Your task to perform on an android device: Show me recent news Image 0: 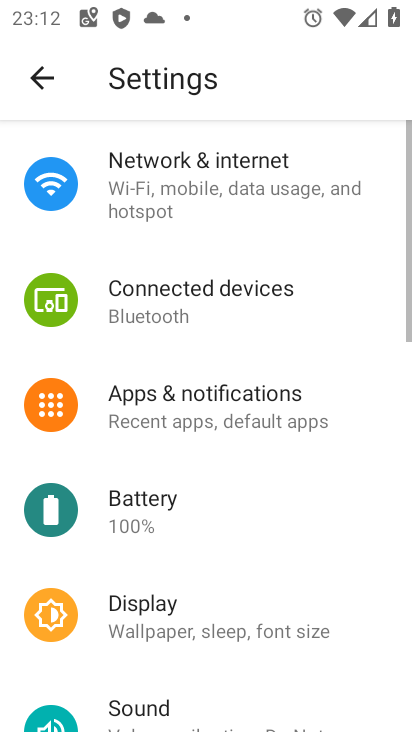
Step 0: press home button
Your task to perform on an android device: Show me recent news Image 1: 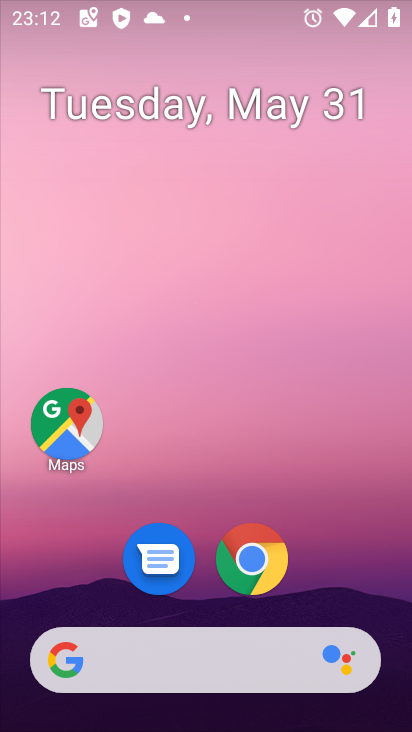
Step 1: drag from (331, 594) to (297, 50)
Your task to perform on an android device: Show me recent news Image 2: 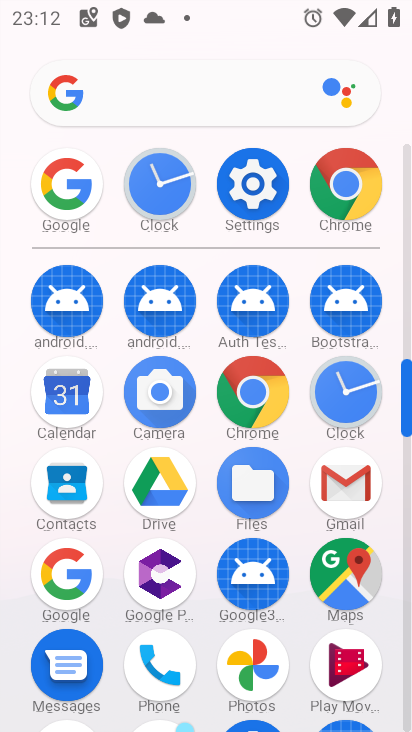
Step 2: click (65, 179)
Your task to perform on an android device: Show me recent news Image 3: 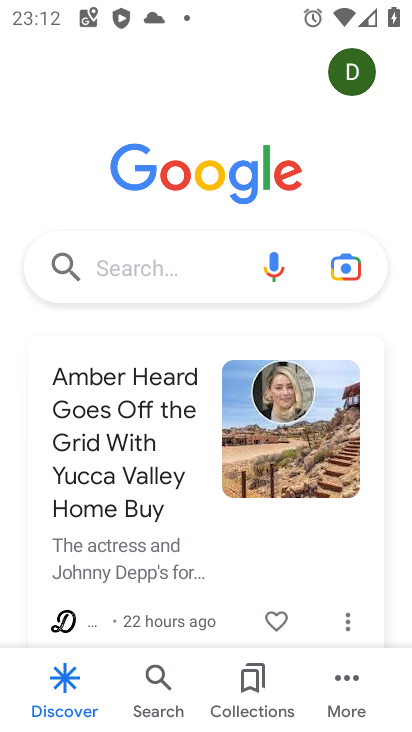
Step 3: click (137, 280)
Your task to perform on an android device: Show me recent news Image 4: 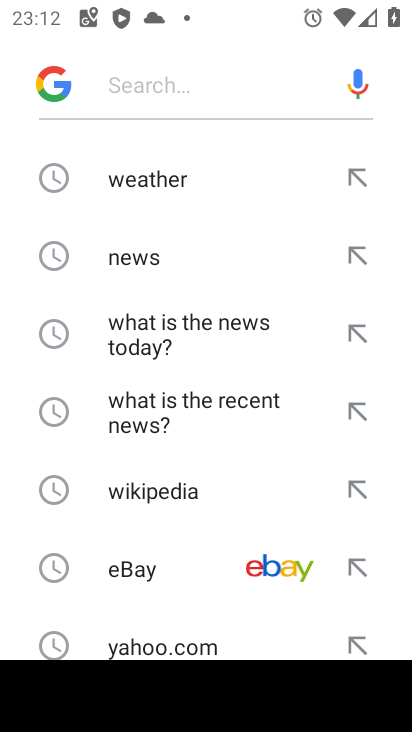
Step 4: drag from (237, 450) to (217, 216)
Your task to perform on an android device: Show me recent news Image 5: 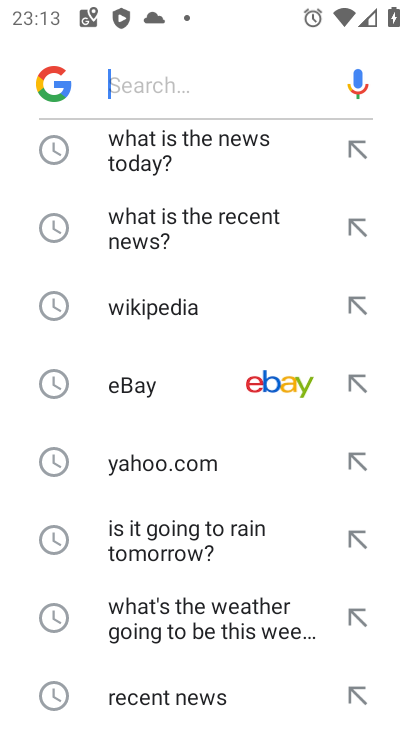
Step 5: click (160, 692)
Your task to perform on an android device: Show me recent news Image 6: 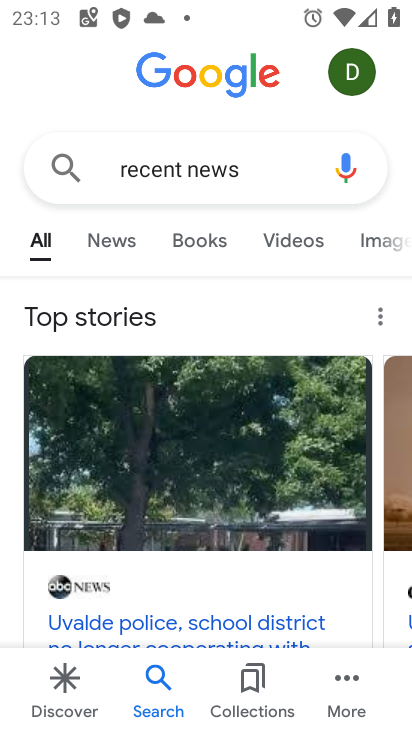
Step 6: task complete